Your task to perform on an android device: check google app version Image 0: 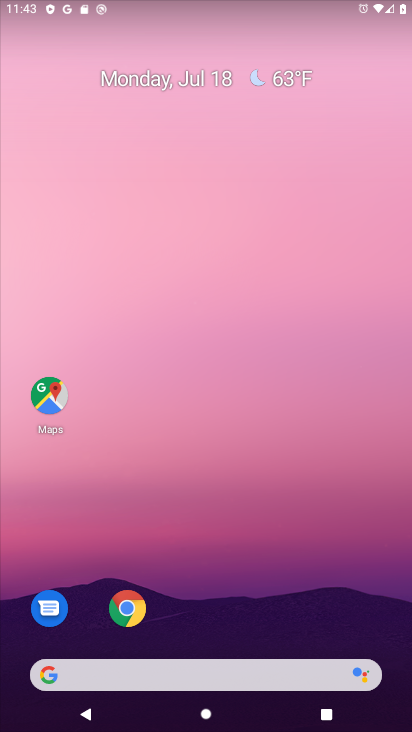
Step 0: drag from (255, 599) to (317, 0)
Your task to perform on an android device: check google app version Image 1: 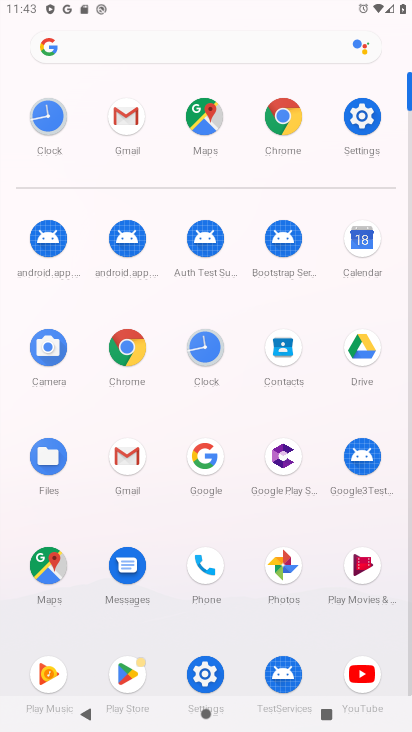
Step 1: click (201, 460)
Your task to perform on an android device: check google app version Image 2: 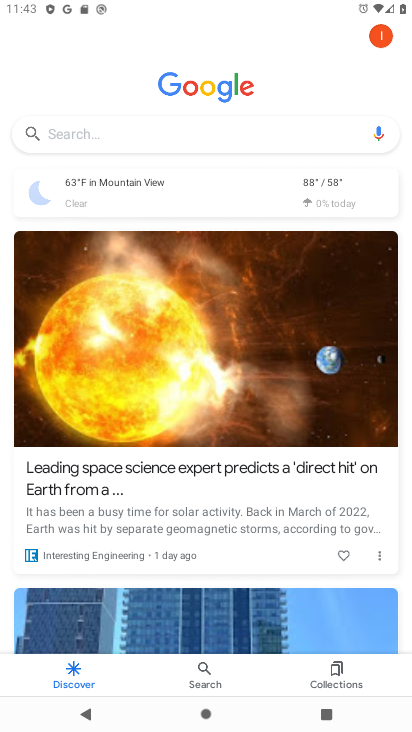
Step 2: click (387, 42)
Your task to perform on an android device: check google app version Image 3: 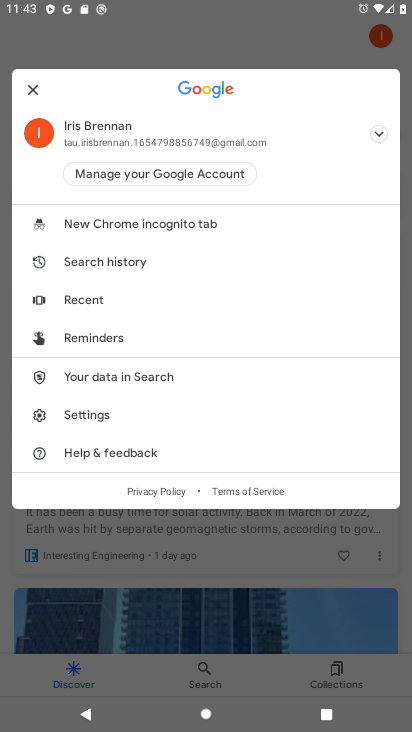
Step 3: click (118, 415)
Your task to perform on an android device: check google app version Image 4: 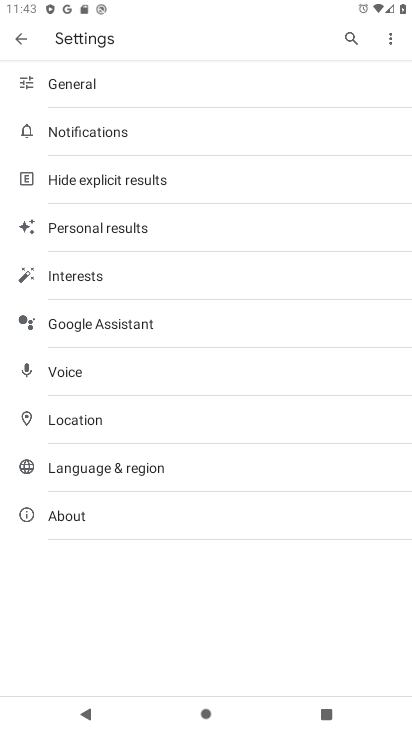
Step 4: click (118, 512)
Your task to perform on an android device: check google app version Image 5: 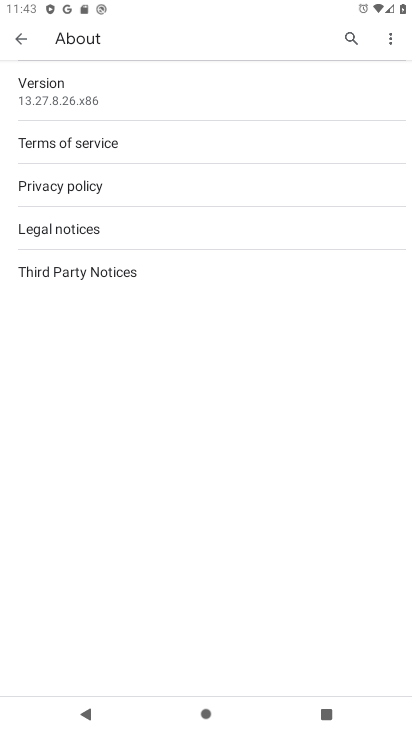
Step 5: click (93, 89)
Your task to perform on an android device: check google app version Image 6: 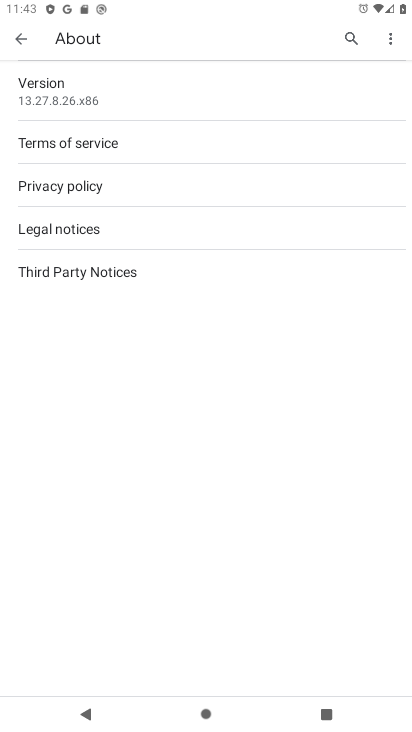
Step 6: click (93, 89)
Your task to perform on an android device: check google app version Image 7: 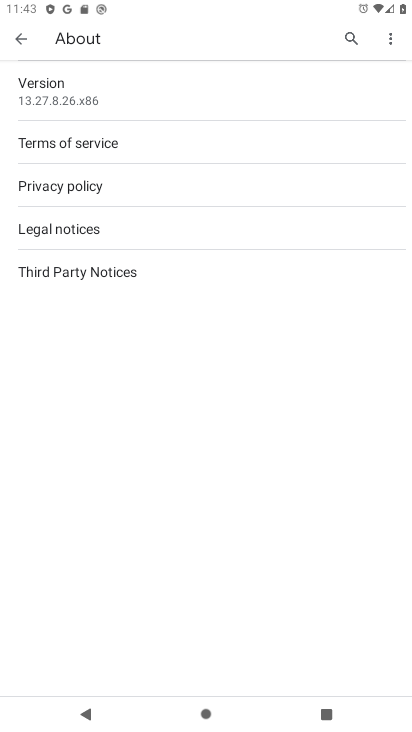
Step 7: task complete